Your task to perform on an android device: check google app version Image 0: 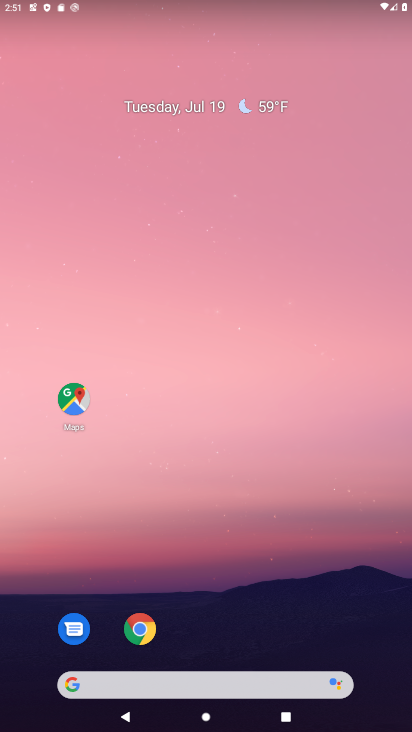
Step 0: click (172, 681)
Your task to perform on an android device: check google app version Image 1: 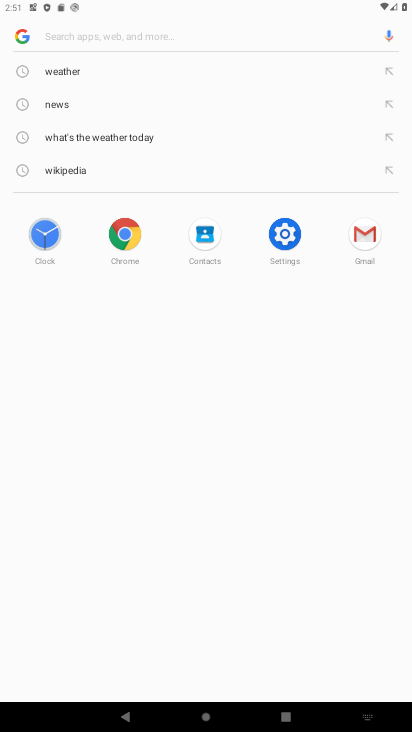
Step 1: click (13, 44)
Your task to perform on an android device: check google app version Image 2: 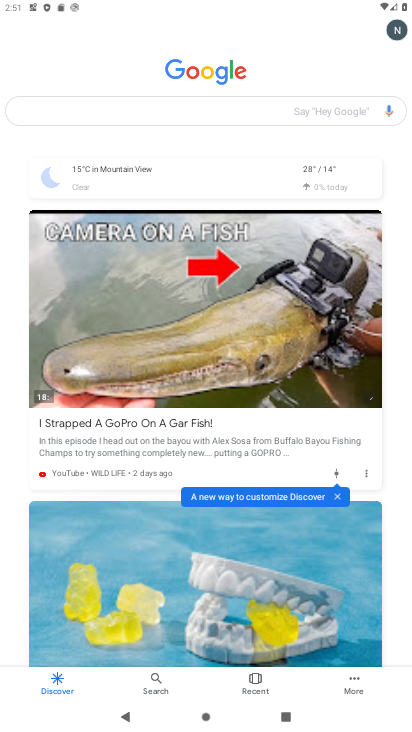
Step 2: click (350, 688)
Your task to perform on an android device: check google app version Image 3: 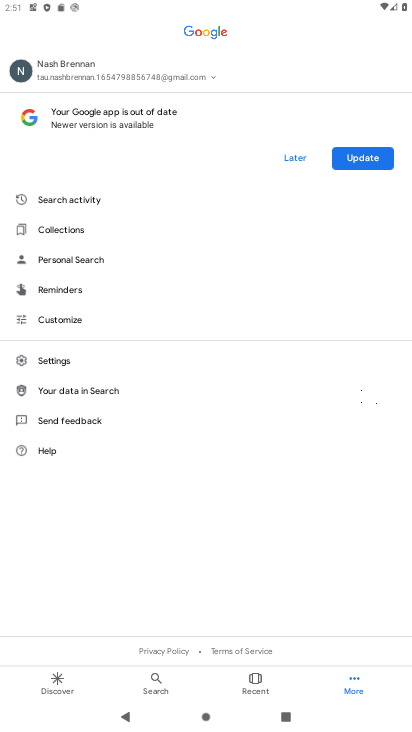
Step 3: click (73, 367)
Your task to perform on an android device: check google app version Image 4: 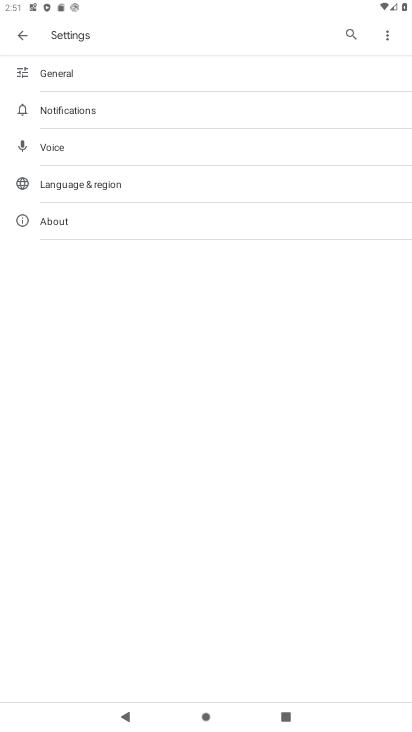
Step 4: click (82, 208)
Your task to perform on an android device: check google app version Image 5: 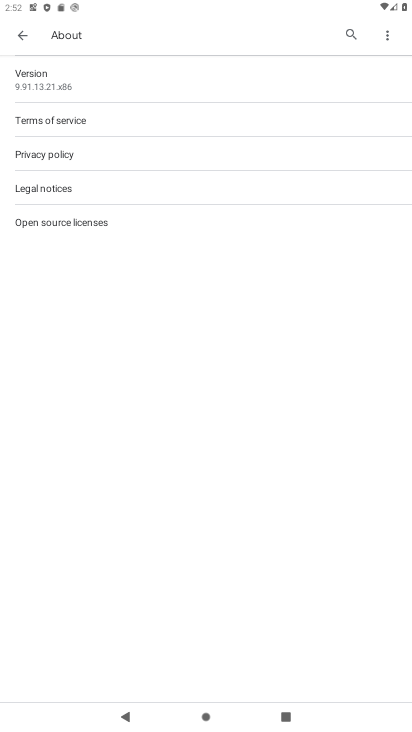
Step 5: task complete